Your task to perform on an android device: Add corsair k70 to the cart on amazon Image 0: 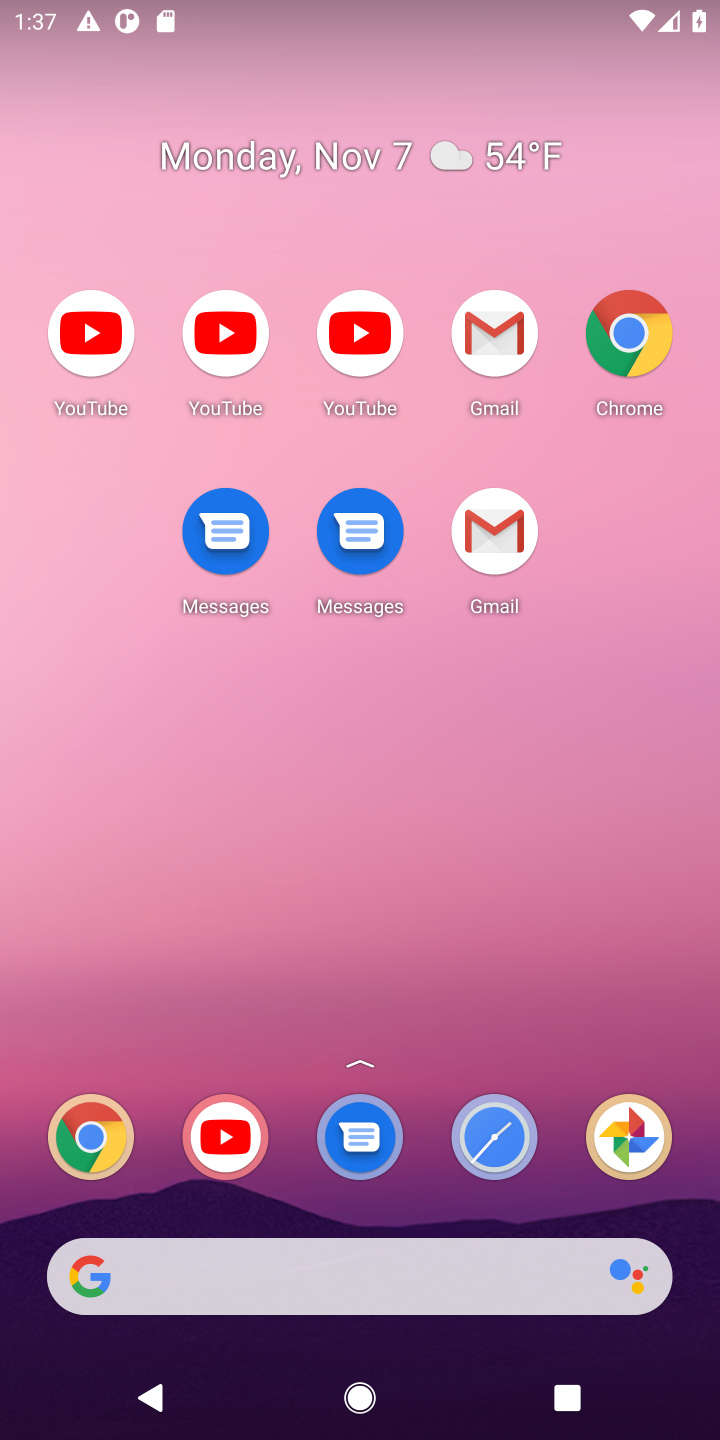
Step 0: drag from (414, 1221) to (478, 208)
Your task to perform on an android device: Add corsair k70 to the cart on amazon Image 1: 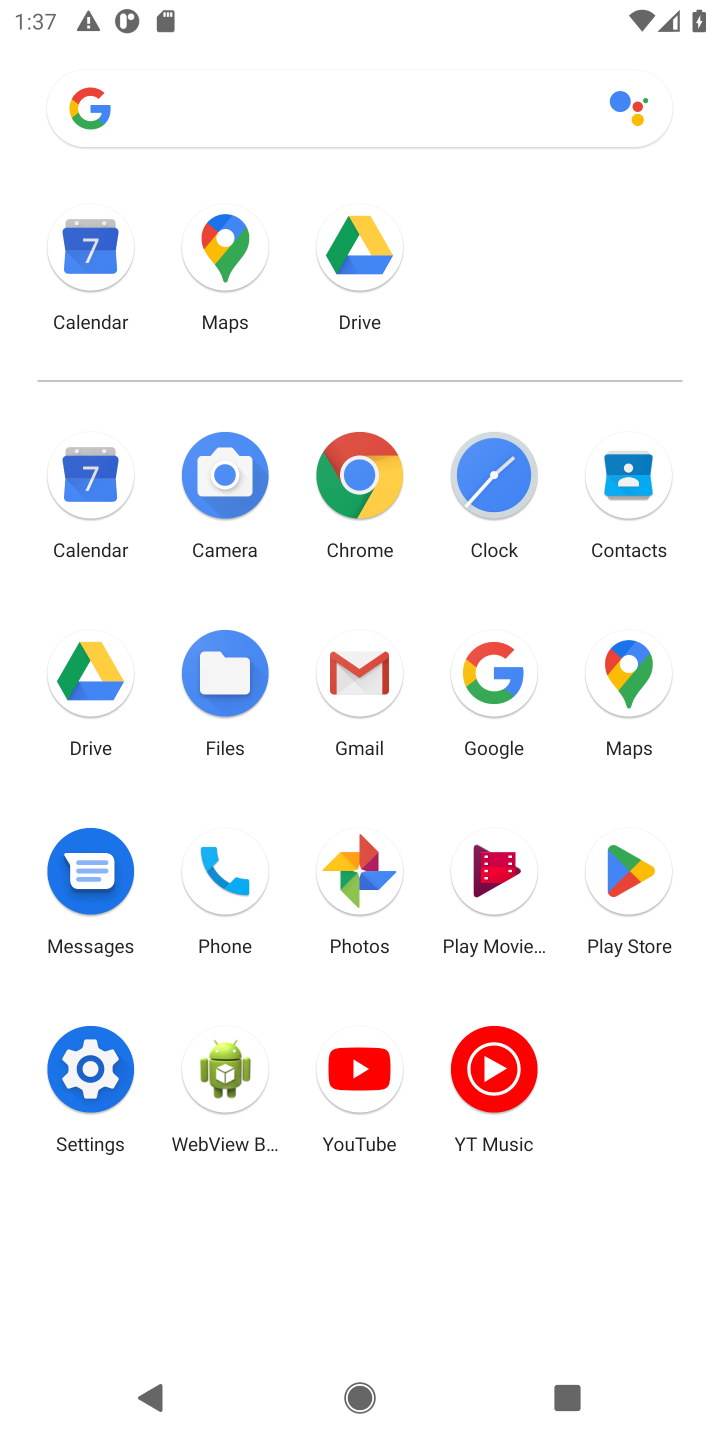
Step 1: click (350, 471)
Your task to perform on an android device: Add corsair k70 to the cart on amazon Image 2: 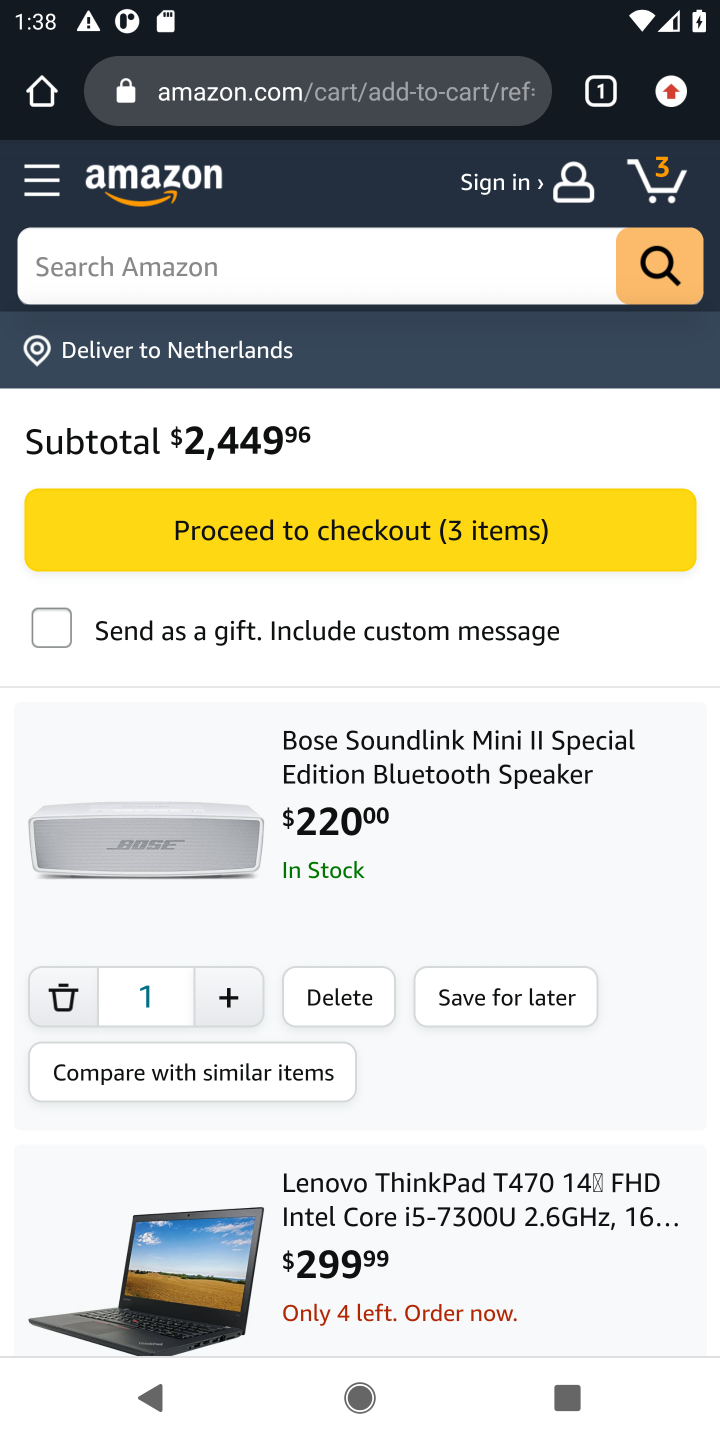
Step 2: click (500, 282)
Your task to perform on an android device: Add corsair k70 to the cart on amazon Image 3: 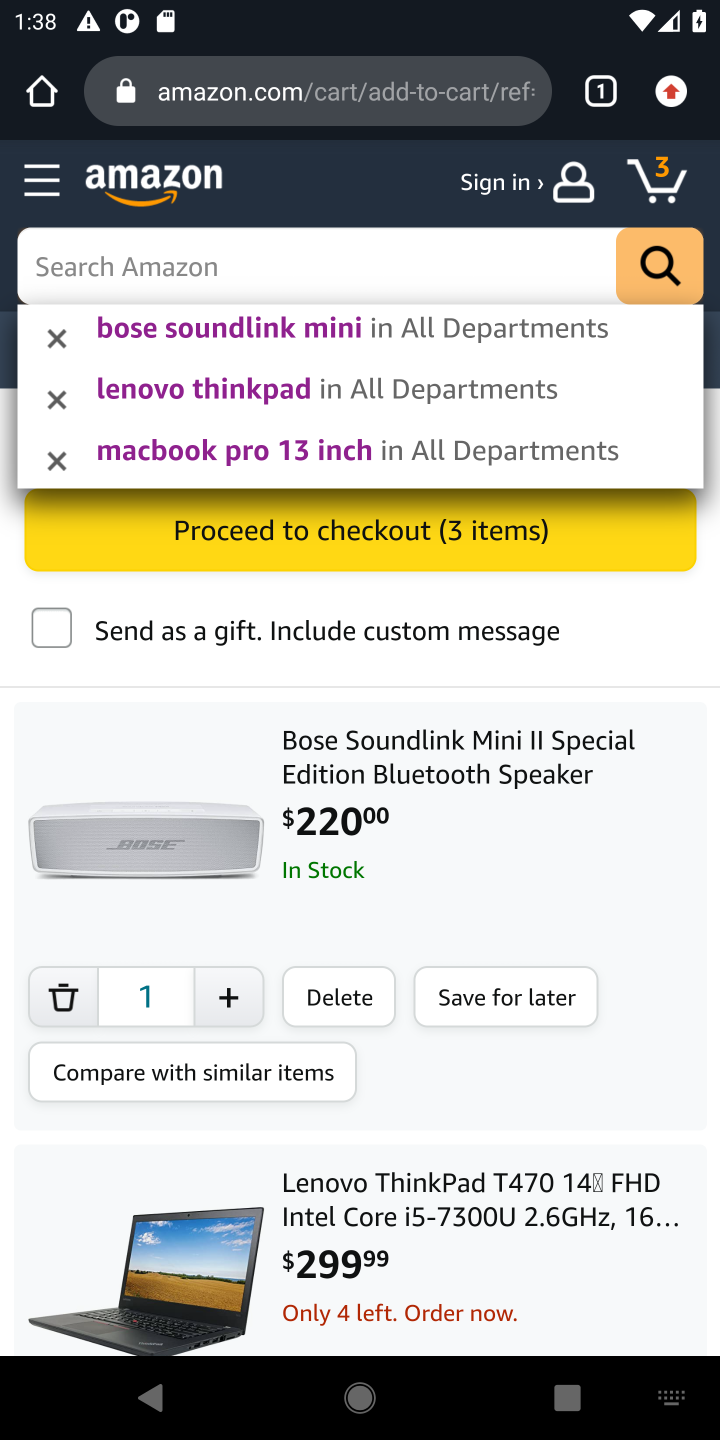
Step 3: type "corsair k70"
Your task to perform on an android device: Add corsair k70 to the cart on amazon Image 4: 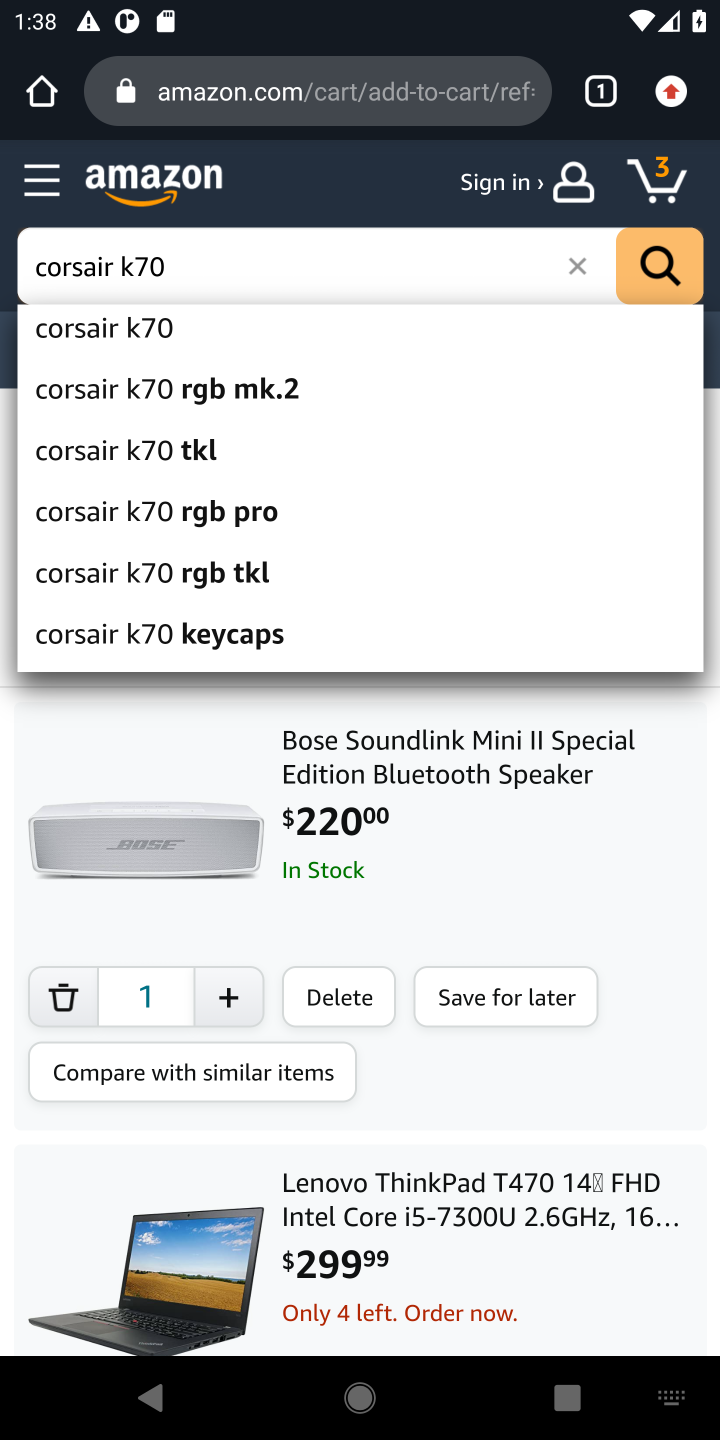
Step 4: click (671, 263)
Your task to perform on an android device: Add corsair k70 to the cart on amazon Image 5: 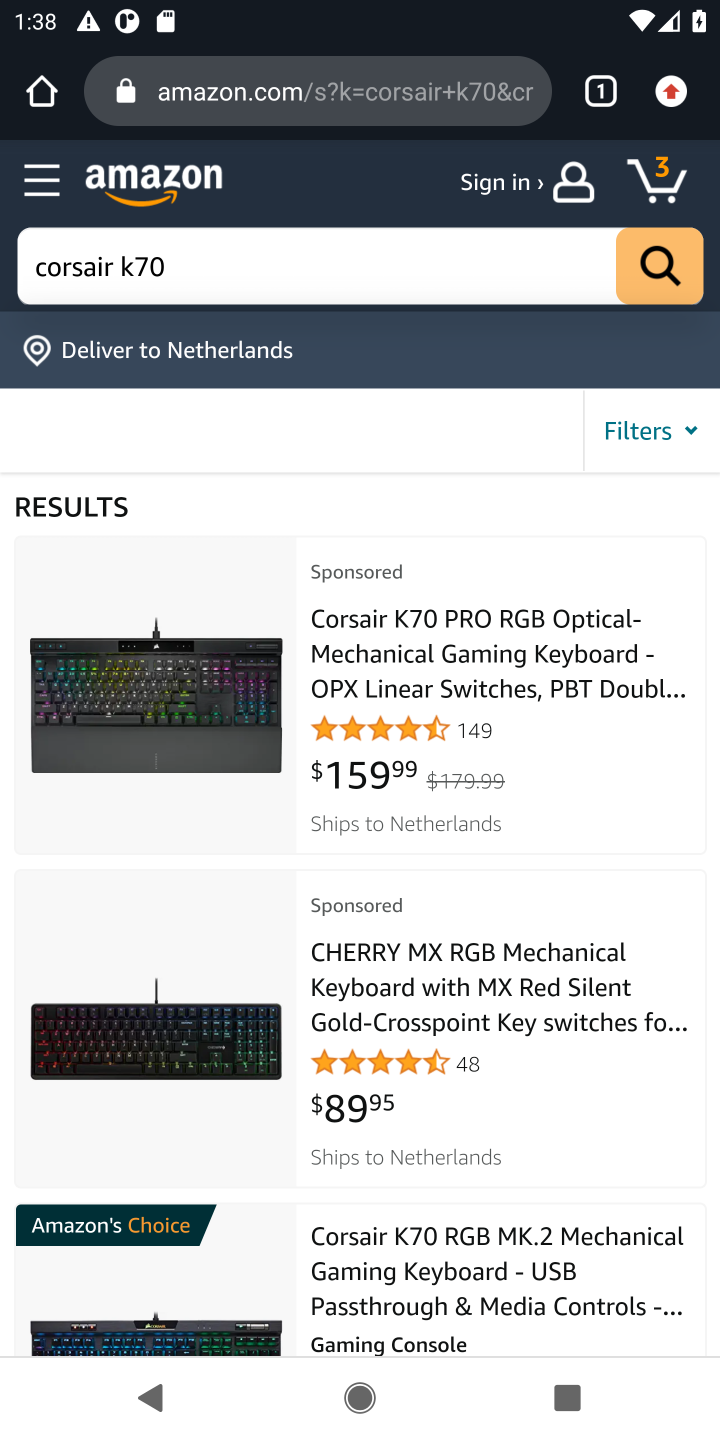
Step 5: click (501, 1269)
Your task to perform on an android device: Add corsair k70 to the cart on amazon Image 6: 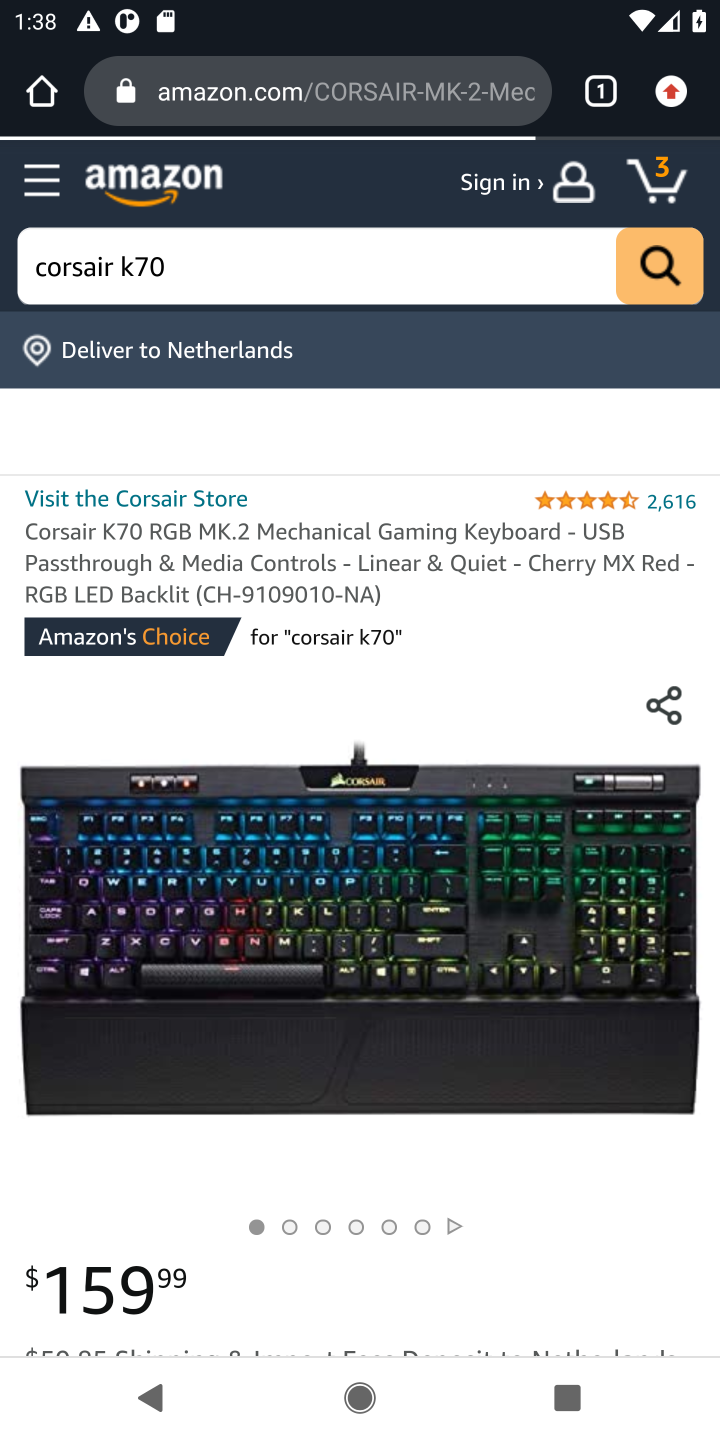
Step 6: drag from (395, 1008) to (337, 272)
Your task to perform on an android device: Add corsair k70 to the cart on amazon Image 7: 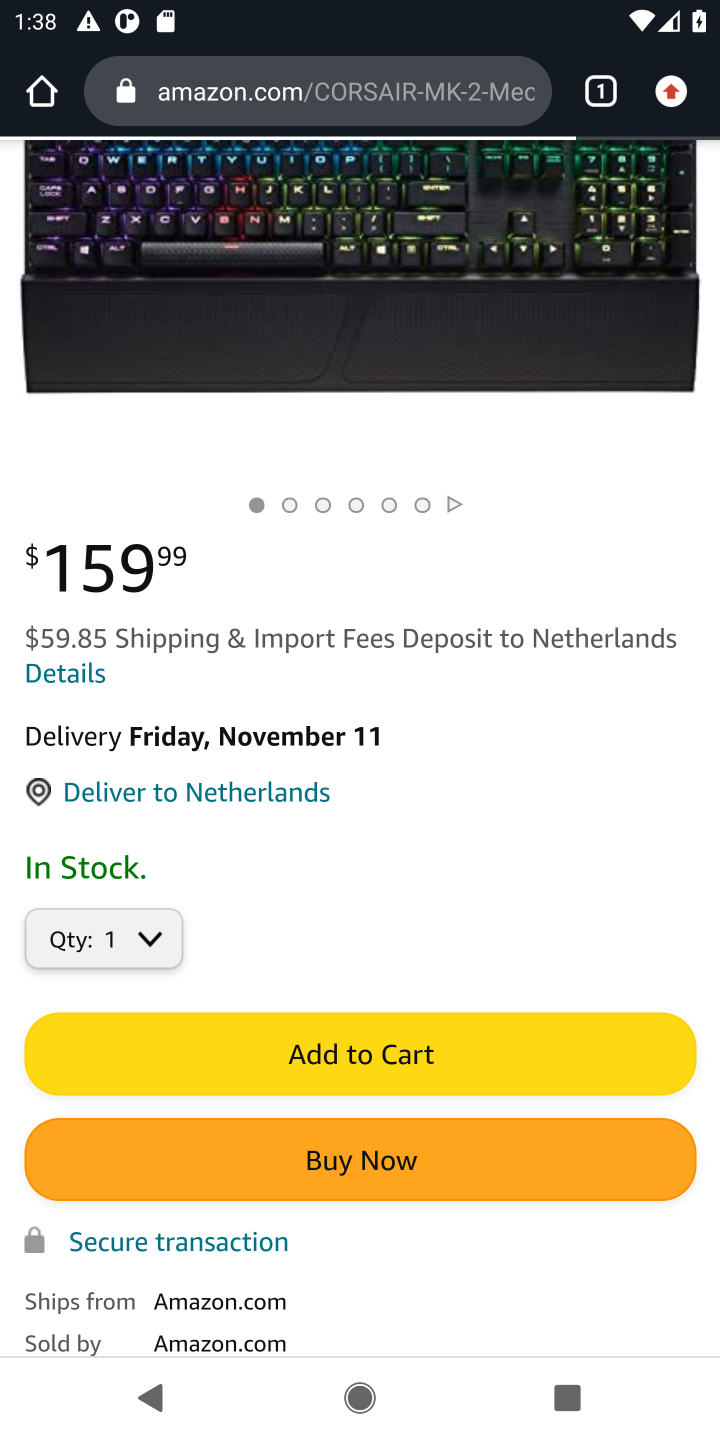
Step 7: click (421, 1037)
Your task to perform on an android device: Add corsair k70 to the cart on amazon Image 8: 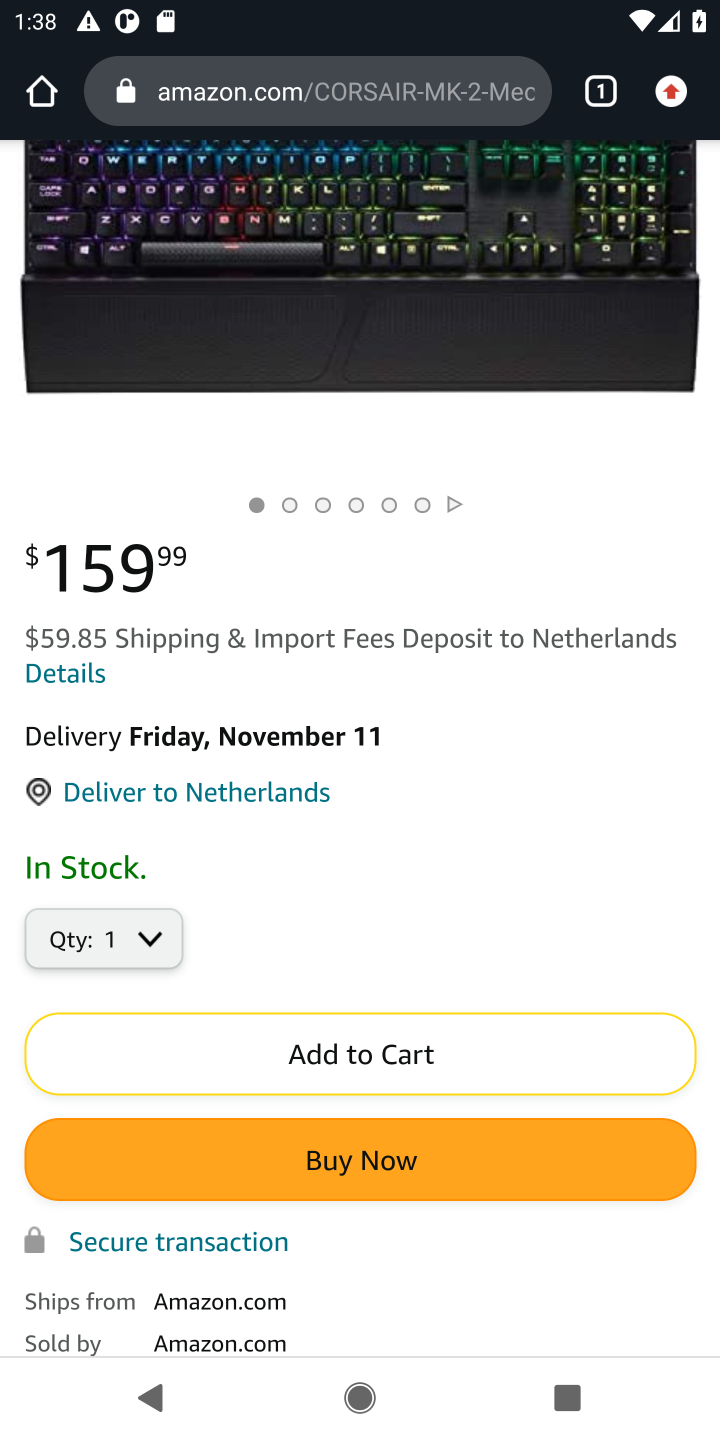
Step 8: task complete